Your task to perform on an android device: turn vacation reply on in the gmail app Image 0: 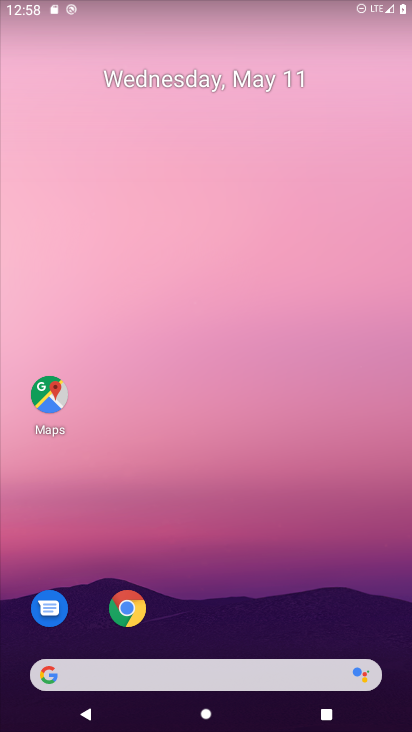
Step 0: drag from (317, 546) to (331, 37)
Your task to perform on an android device: turn vacation reply on in the gmail app Image 1: 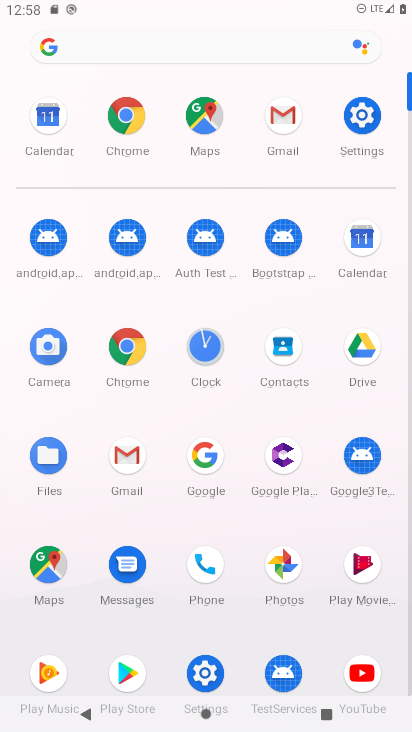
Step 1: click (282, 114)
Your task to perform on an android device: turn vacation reply on in the gmail app Image 2: 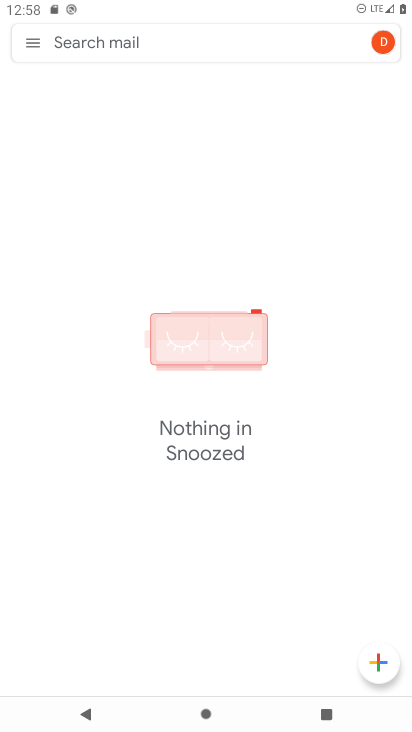
Step 2: click (34, 43)
Your task to perform on an android device: turn vacation reply on in the gmail app Image 3: 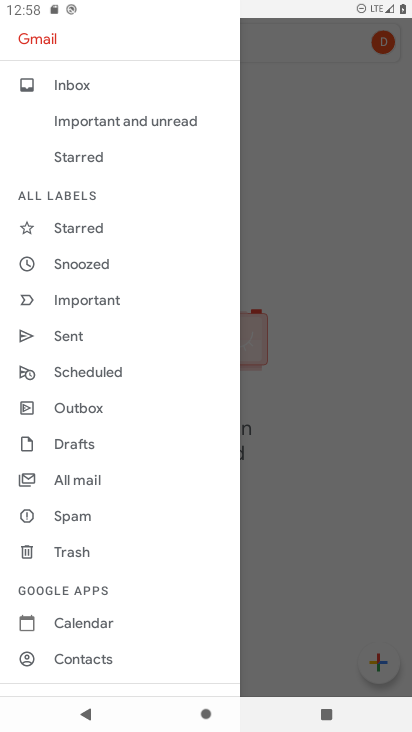
Step 3: drag from (111, 577) to (110, 413)
Your task to perform on an android device: turn vacation reply on in the gmail app Image 4: 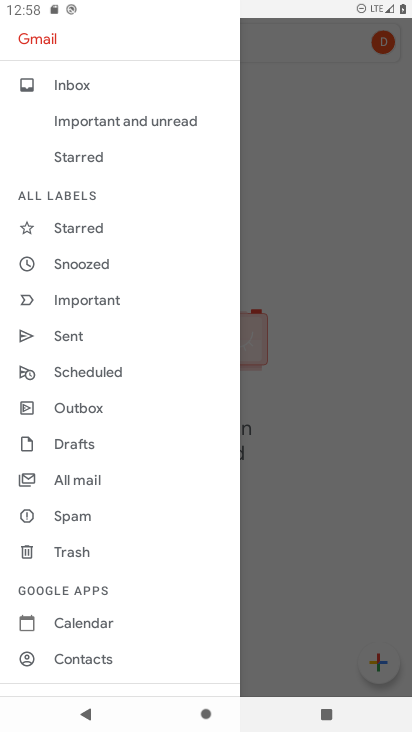
Step 4: drag from (120, 469) to (137, 309)
Your task to perform on an android device: turn vacation reply on in the gmail app Image 5: 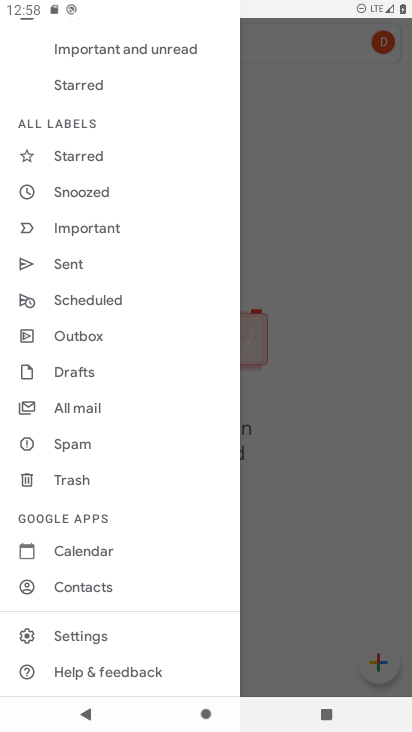
Step 5: click (90, 627)
Your task to perform on an android device: turn vacation reply on in the gmail app Image 6: 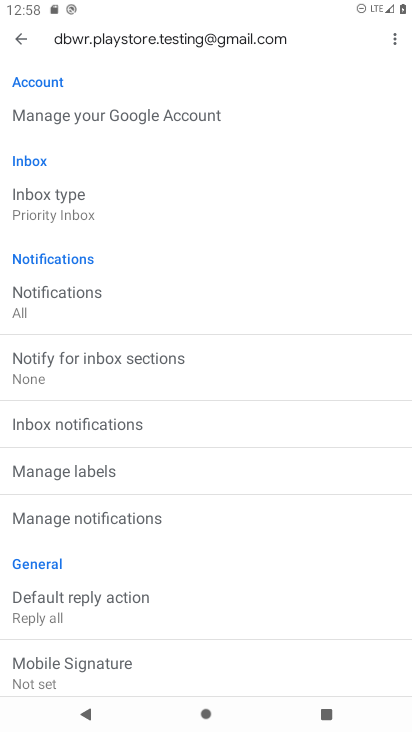
Step 6: drag from (238, 550) to (247, 369)
Your task to perform on an android device: turn vacation reply on in the gmail app Image 7: 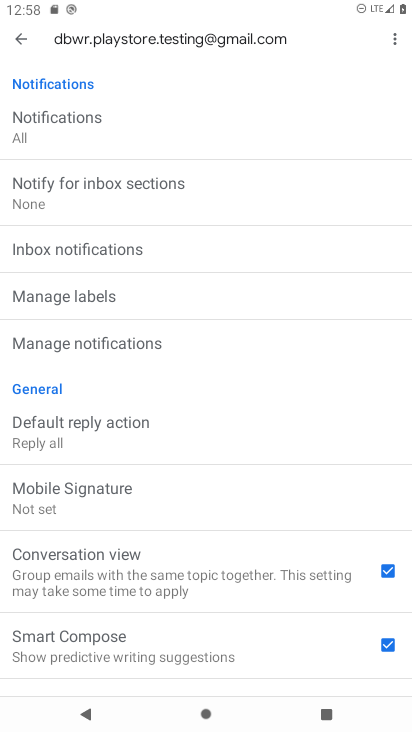
Step 7: drag from (243, 447) to (272, 134)
Your task to perform on an android device: turn vacation reply on in the gmail app Image 8: 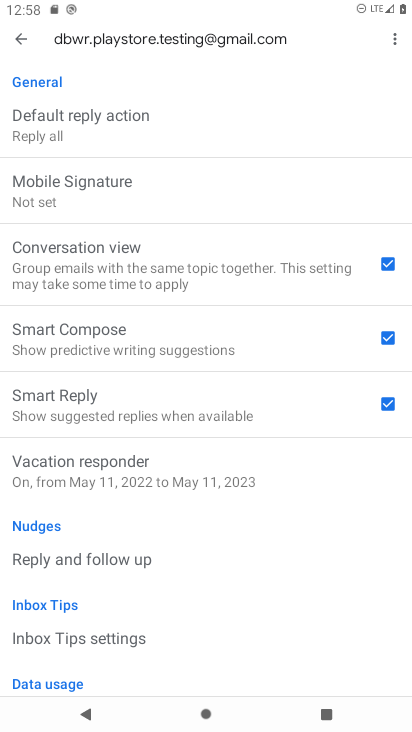
Step 8: click (200, 472)
Your task to perform on an android device: turn vacation reply on in the gmail app Image 9: 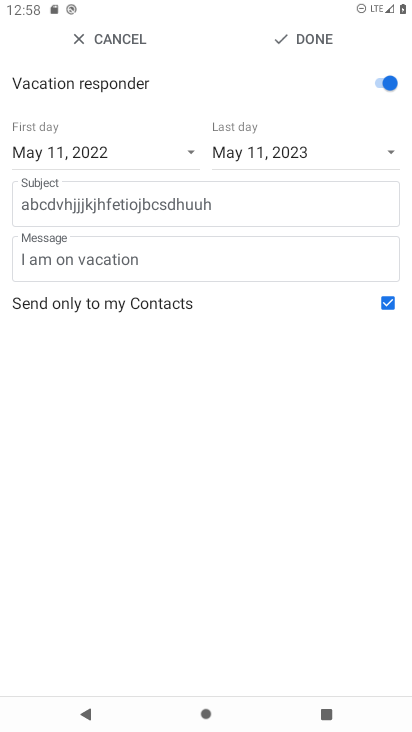
Step 9: task complete